Your task to perform on an android device: Show me popular games on the Play Store Image 0: 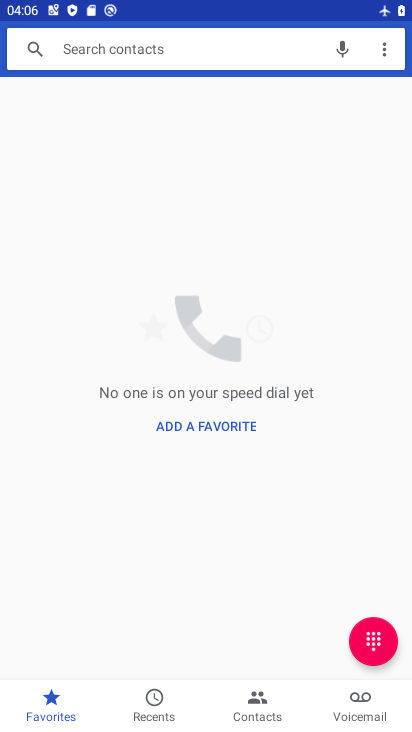
Step 0: press home button
Your task to perform on an android device: Show me popular games on the Play Store Image 1: 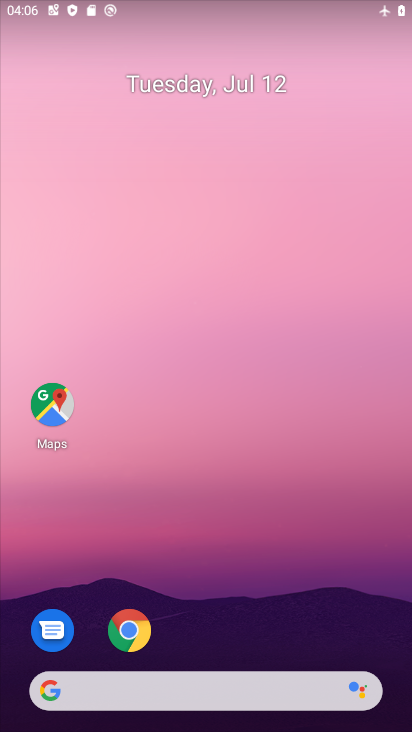
Step 1: drag from (291, 559) to (304, 8)
Your task to perform on an android device: Show me popular games on the Play Store Image 2: 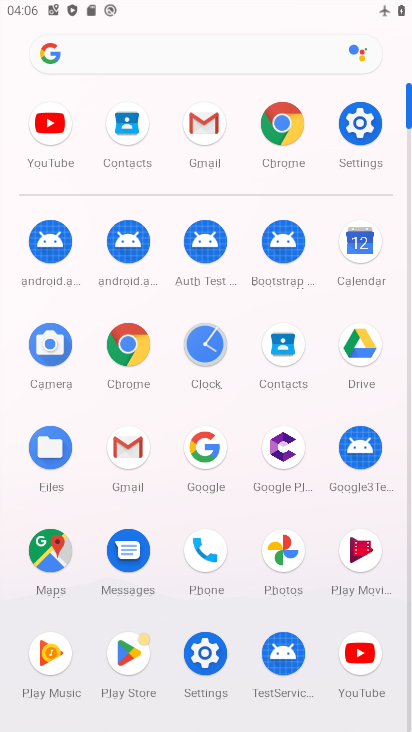
Step 2: click (133, 655)
Your task to perform on an android device: Show me popular games on the Play Store Image 3: 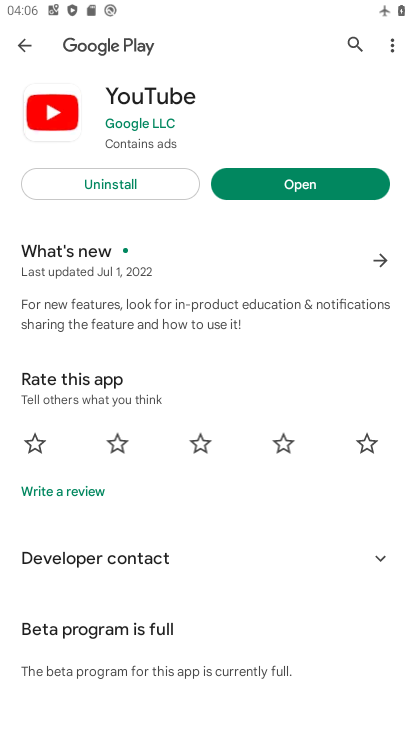
Step 3: press back button
Your task to perform on an android device: Show me popular games on the Play Store Image 4: 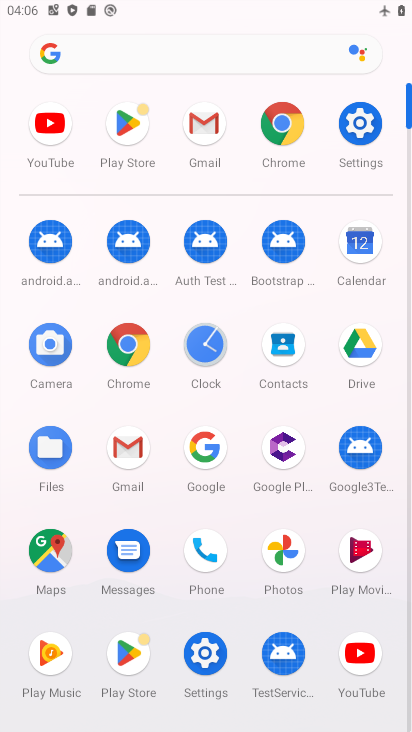
Step 4: click (128, 643)
Your task to perform on an android device: Show me popular games on the Play Store Image 5: 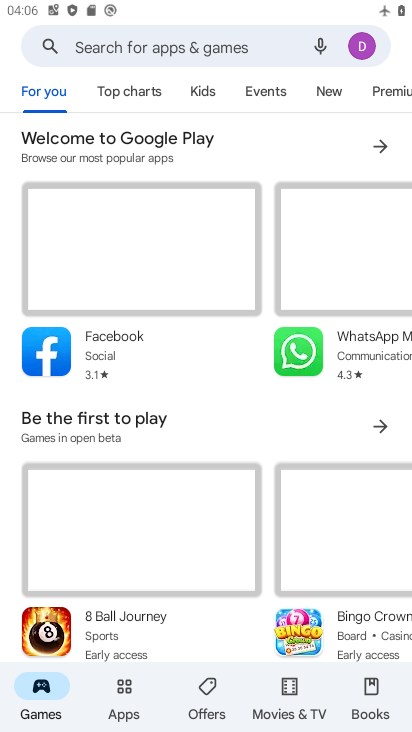
Step 5: drag from (262, 471) to (307, 38)
Your task to perform on an android device: Show me popular games on the Play Store Image 6: 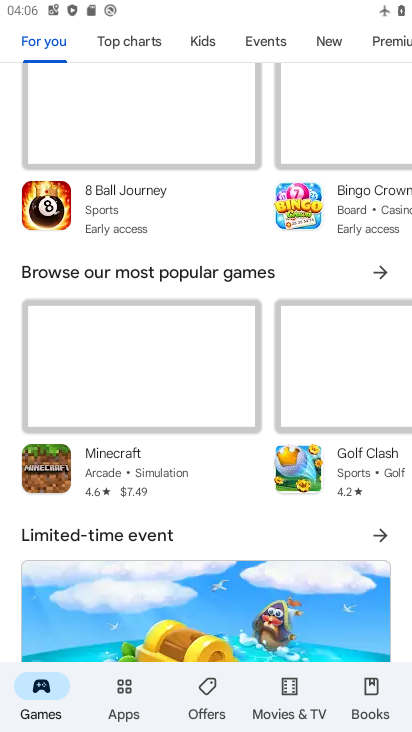
Step 6: click (385, 266)
Your task to perform on an android device: Show me popular games on the Play Store Image 7: 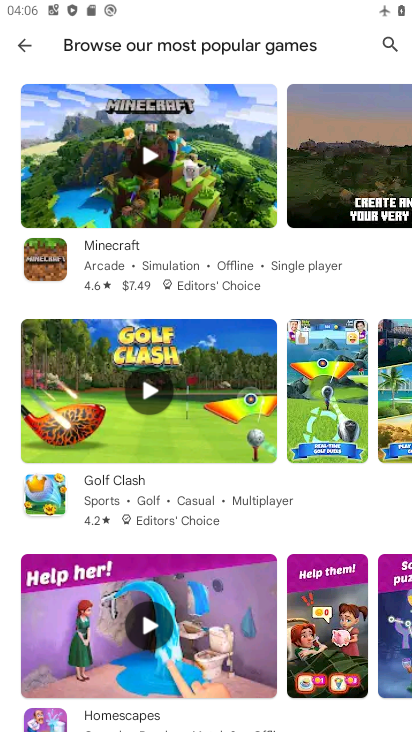
Step 7: task complete